Your task to perform on an android device: toggle pop-ups in chrome Image 0: 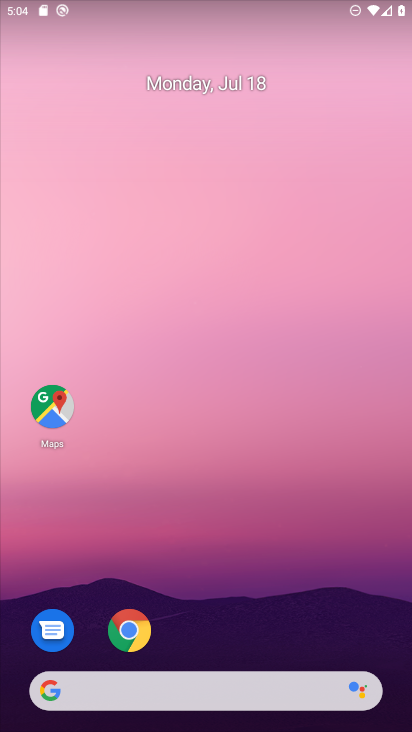
Step 0: press home button
Your task to perform on an android device: toggle pop-ups in chrome Image 1: 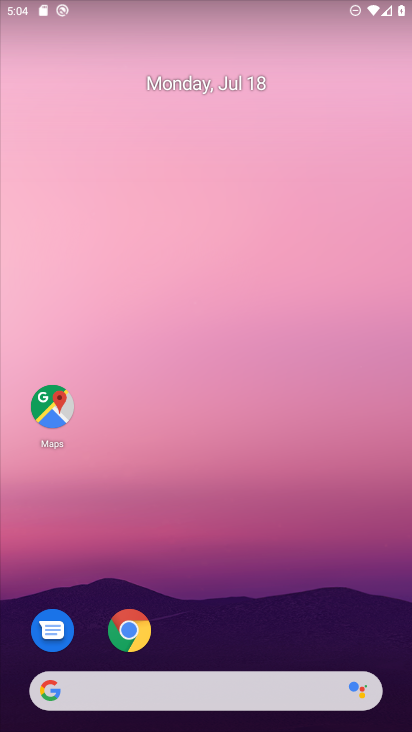
Step 1: click (123, 624)
Your task to perform on an android device: toggle pop-ups in chrome Image 2: 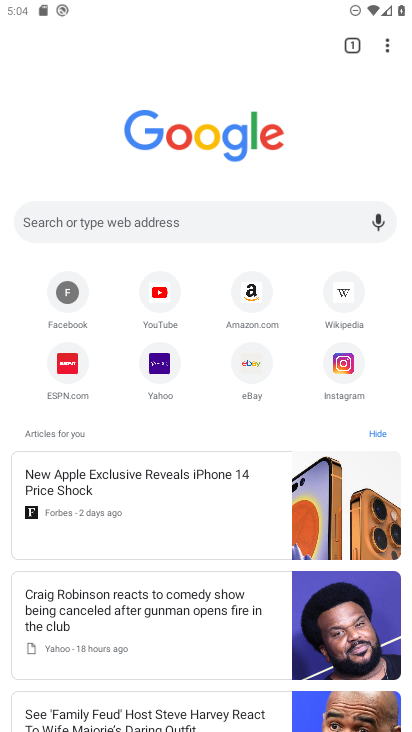
Step 2: click (392, 41)
Your task to perform on an android device: toggle pop-ups in chrome Image 3: 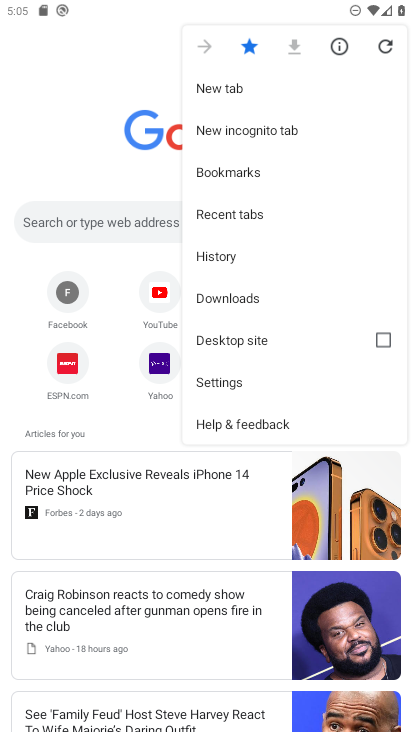
Step 3: click (243, 376)
Your task to perform on an android device: toggle pop-ups in chrome Image 4: 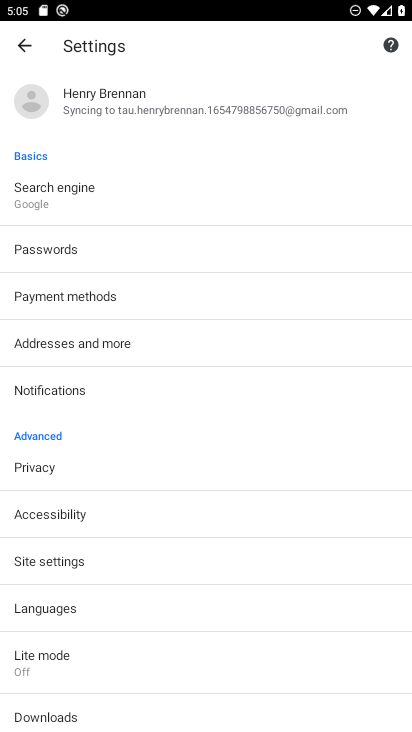
Step 4: click (105, 556)
Your task to perform on an android device: toggle pop-ups in chrome Image 5: 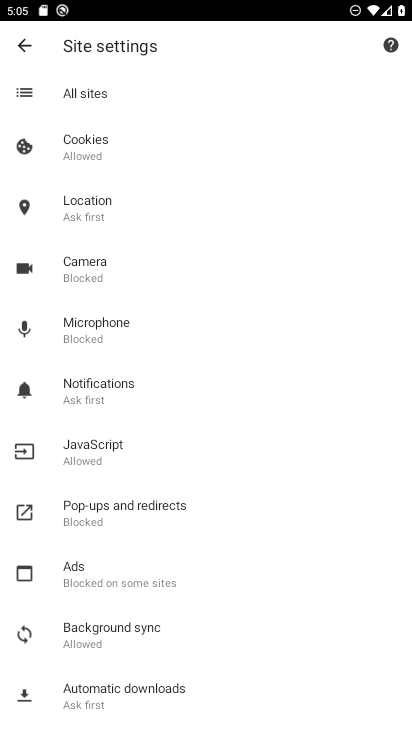
Step 5: click (120, 513)
Your task to perform on an android device: toggle pop-ups in chrome Image 6: 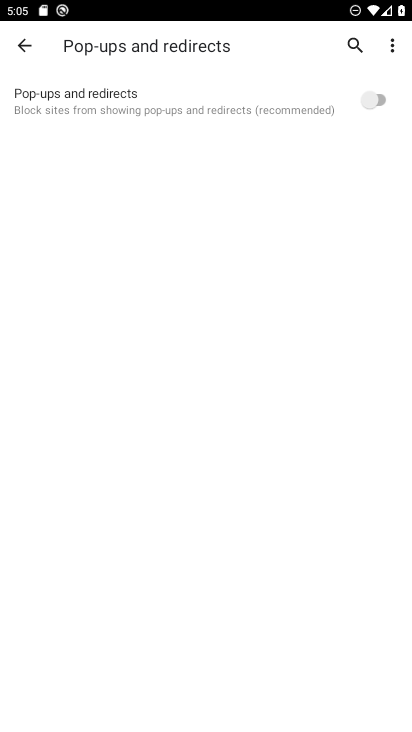
Step 6: click (384, 92)
Your task to perform on an android device: toggle pop-ups in chrome Image 7: 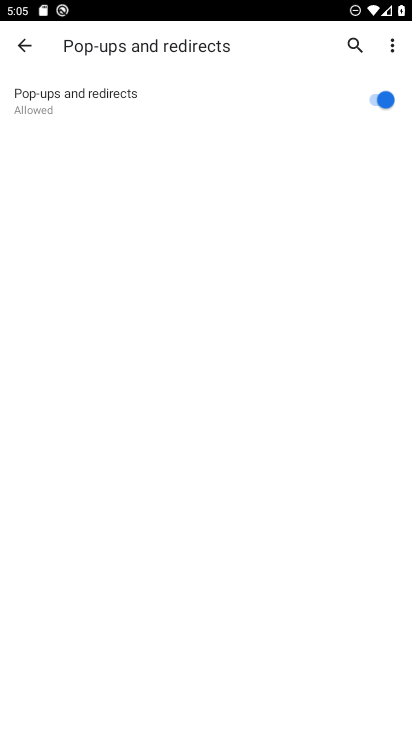
Step 7: task complete